Your task to perform on an android device: show emergency info Image 0: 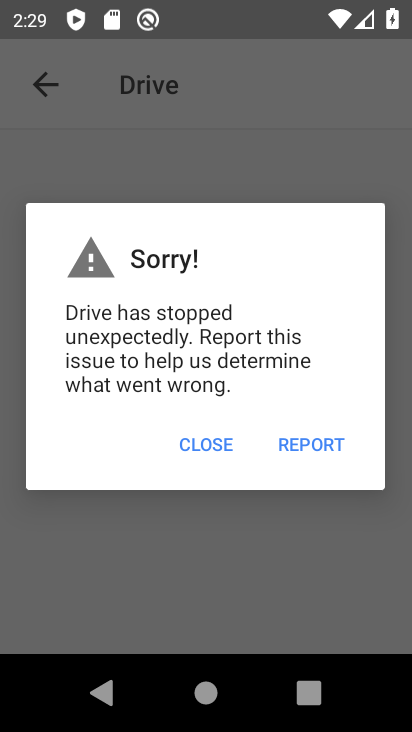
Step 0: press back button
Your task to perform on an android device: show emergency info Image 1: 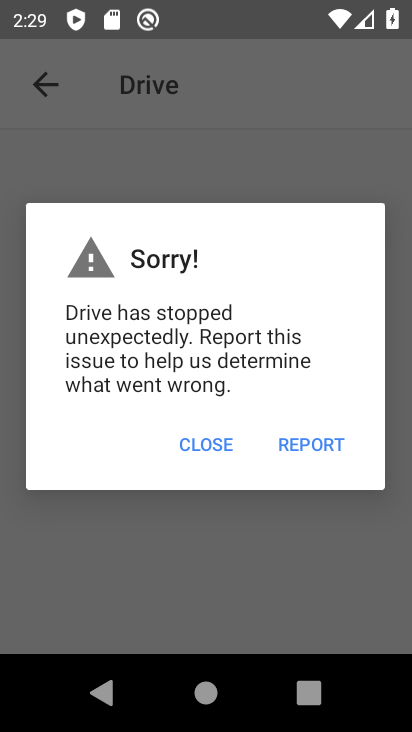
Step 1: press home button
Your task to perform on an android device: show emergency info Image 2: 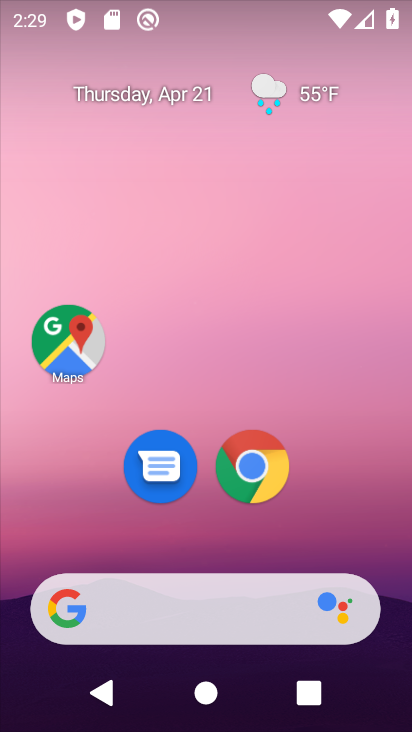
Step 2: drag from (193, 542) to (177, 132)
Your task to perform on an android device: show emergency info Image 3: 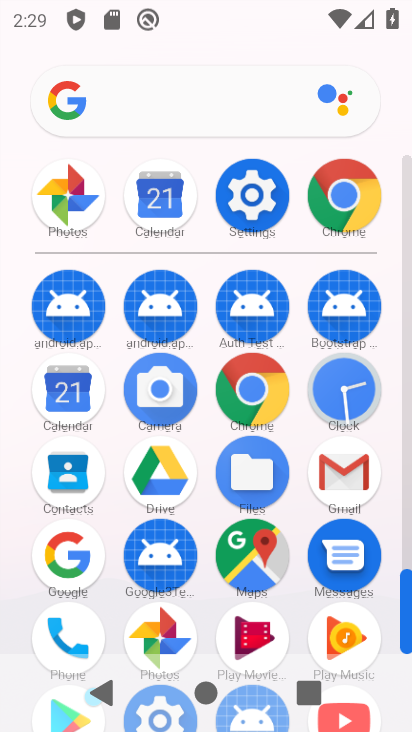
Step 3: click (268, 205)
Your task to perform on an android device: show emergency info Image 4: 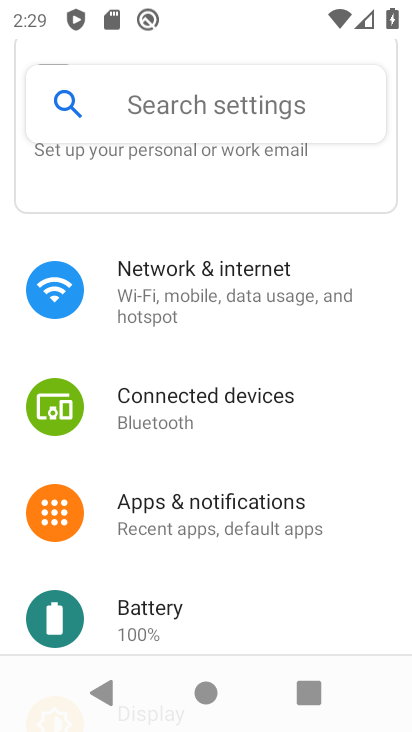
Step 4: drag from (217, 585) to (216, 172)
Your task to perform on an android device: show emergency info Image 5: 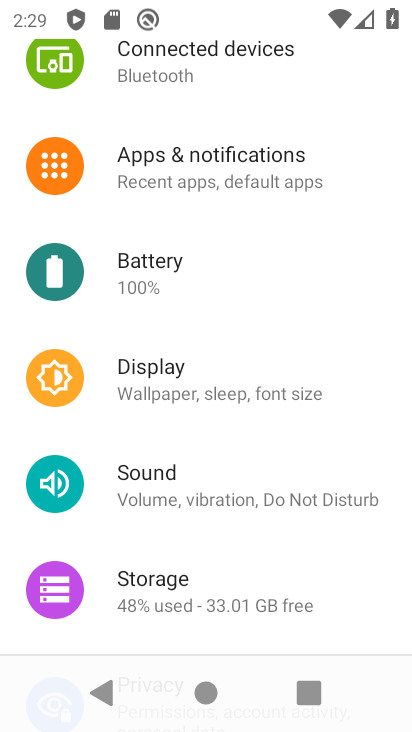
Step 5: drag from (126, 650) to (134, 110)
Your task to perform on an android device: show emergency info Image 6: 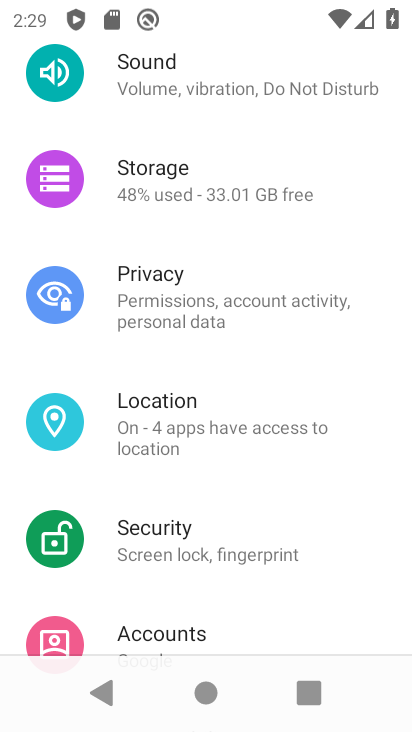
Step 6: drag from (196, 620) to (191, 101)
Your task to perform on an android device: show emergency info Image 7: 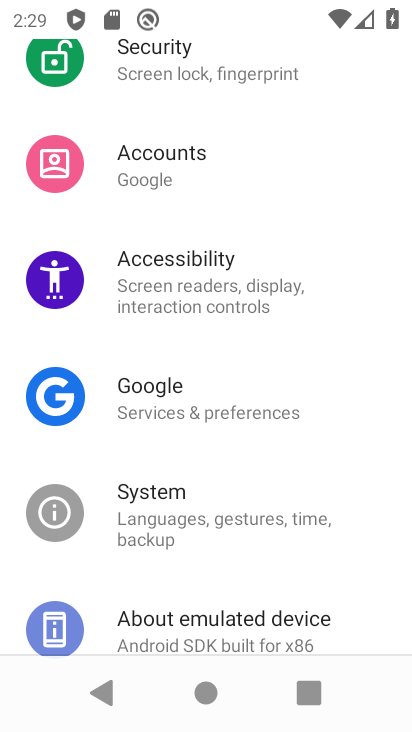
Step 7: click (178, 640)
Your task to perform on an android device: show emergency info Image 8: 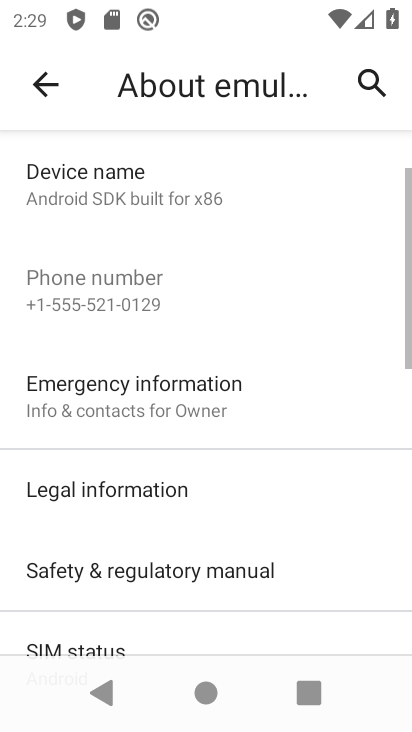
Step 8: click (256, 419)
Your task to perform on an android device: show emergency info Image 9: 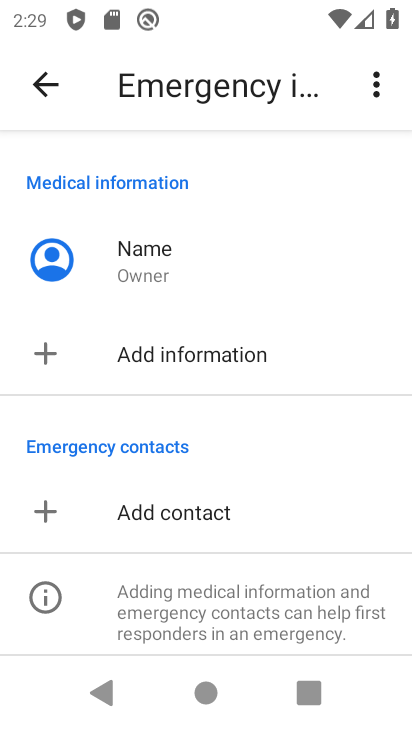
Step 9: task complete